Your task to perform on an android device: install app "Duolingo: language lessons" Image 0: 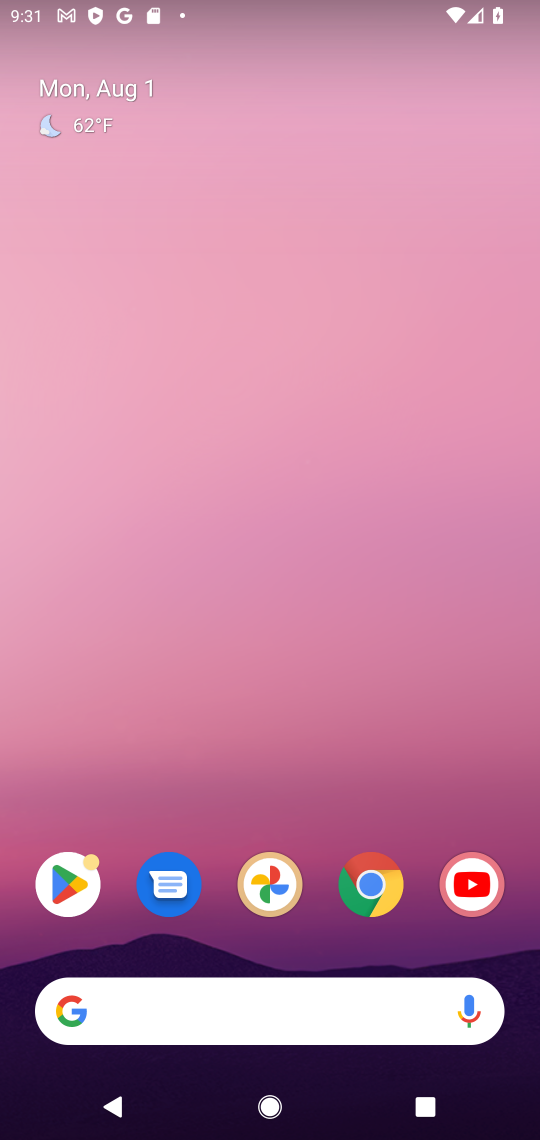
Step 0: click (76, 864)
Your task to perform on an android device: install app "Duolingo: language lessons" Image 1: 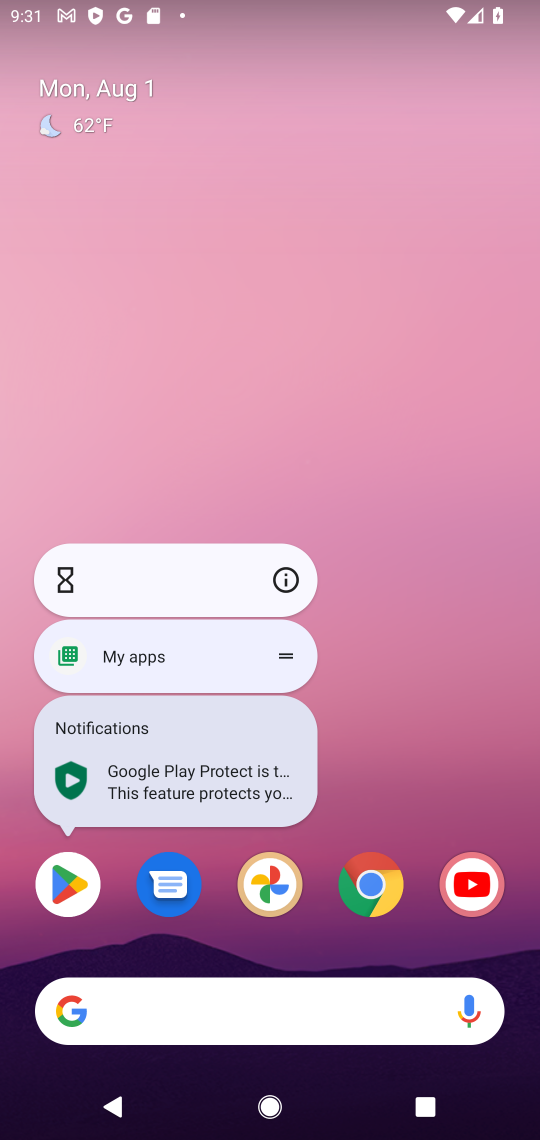
Step 1: click (76, 864)
Your task to perform on an android device: install app "Duolingo: language lessons" Image 2: 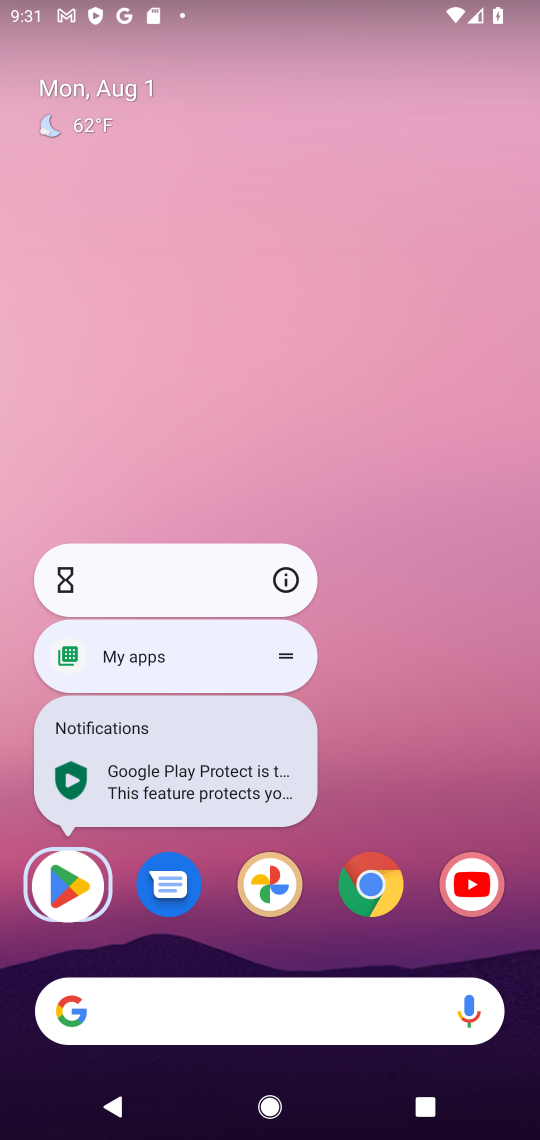
Step 2: click (76, 877)
Your task to perform on an android device: install app "Duolingo: language lessons" Image 3: 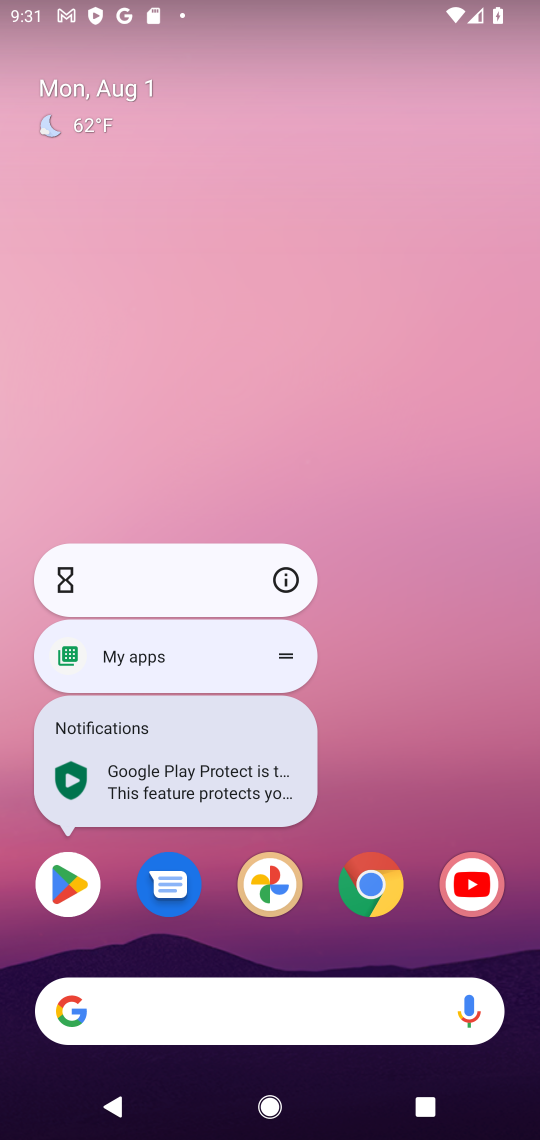
Step 3: click (64, 886)
Your task to perform on an android device: install app "Duolingo: language lessons" Image 4: 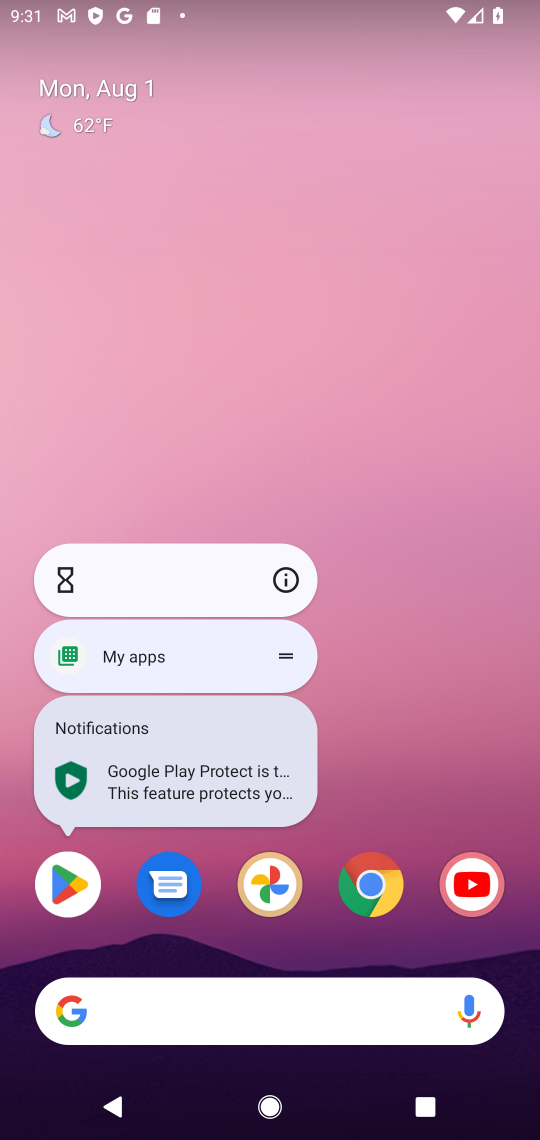
Step 4: click (64, 886)
Your task to perform on an android device: install app "Duolingo: language lessons" Image 5: 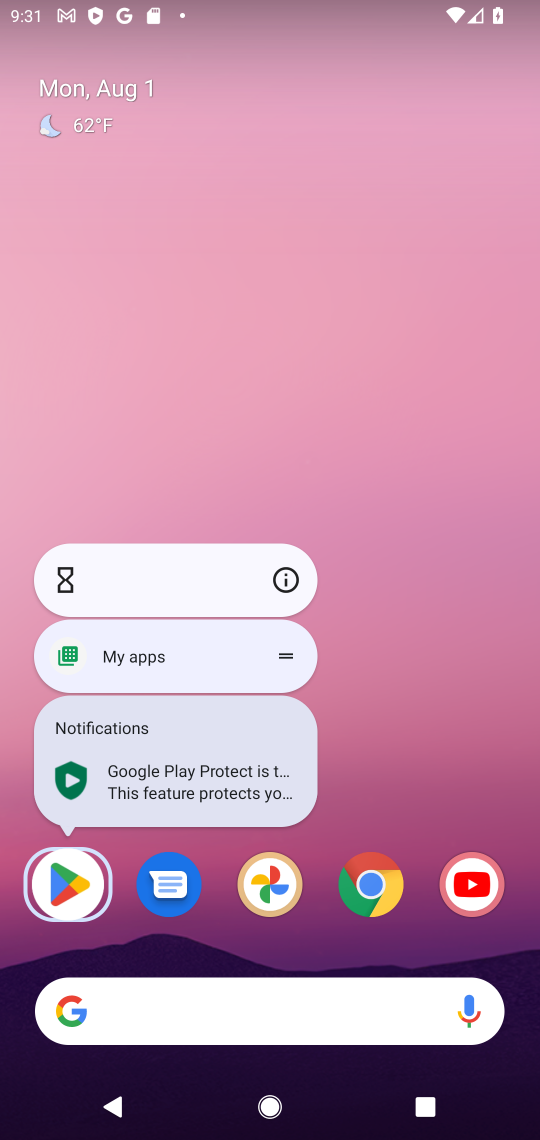
Step 5: click (64, 886)
Your task to perform on an android device: install app "Duolingo: language lessons" Image 6: 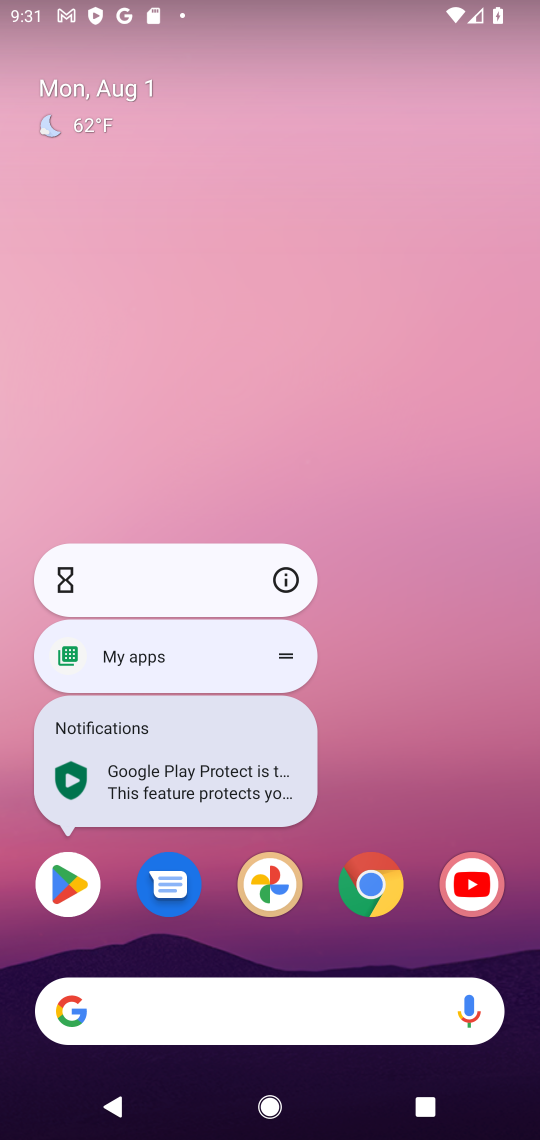
Step 6: click (64, 886)
Your task to perform on an android device: install app "Duolingo: language lessons" Image 7: 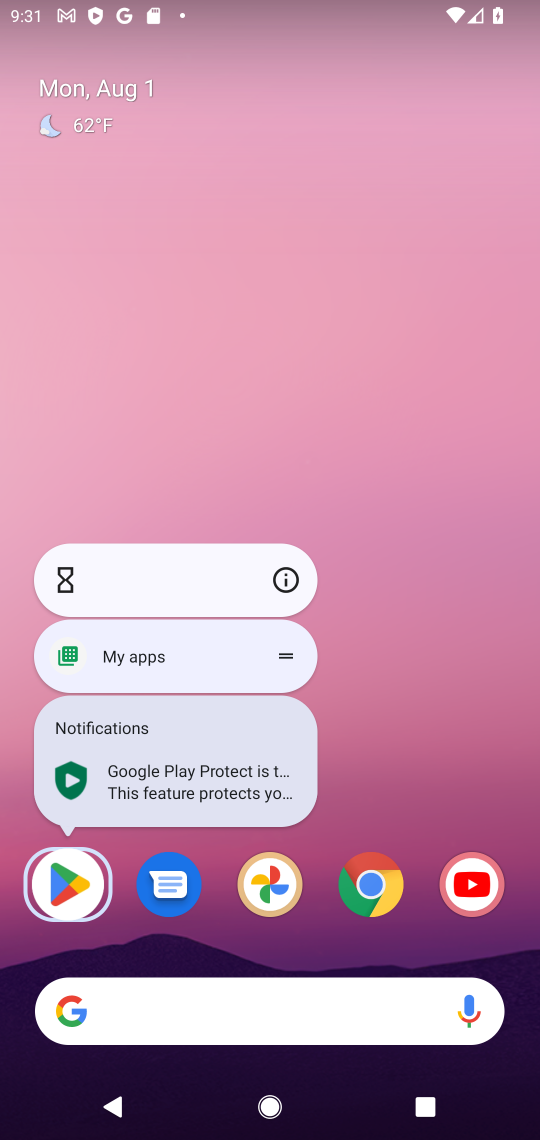
Step 7: click (64, 886)
Your task to perform on an android device: install app "Duolingo: language lessons" Image 8: 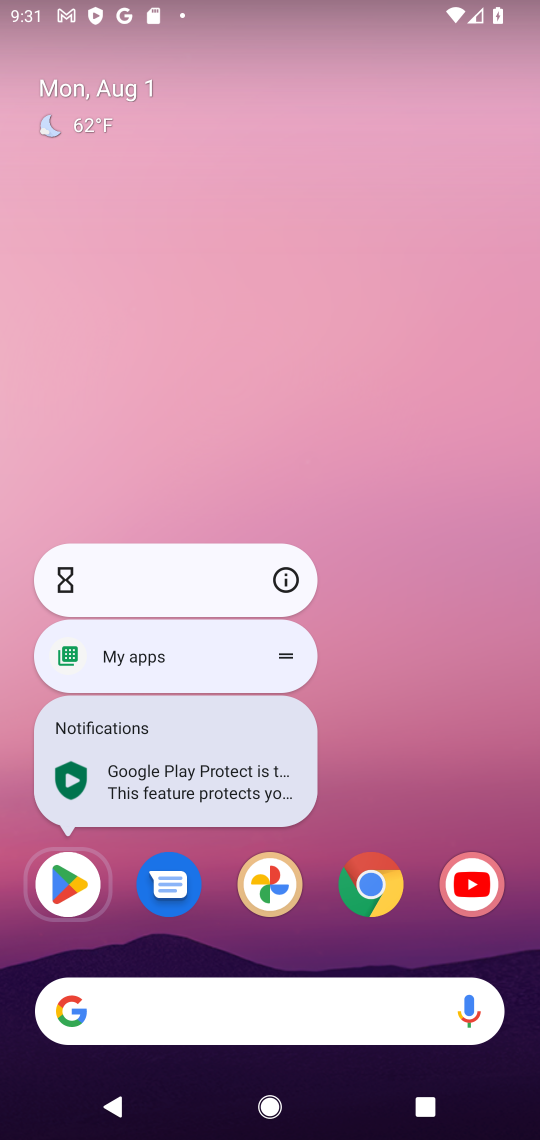
Step 8: click (64, 886)
Your task to perform on an android device: install app "Duolingo: language lessons" Image 9: 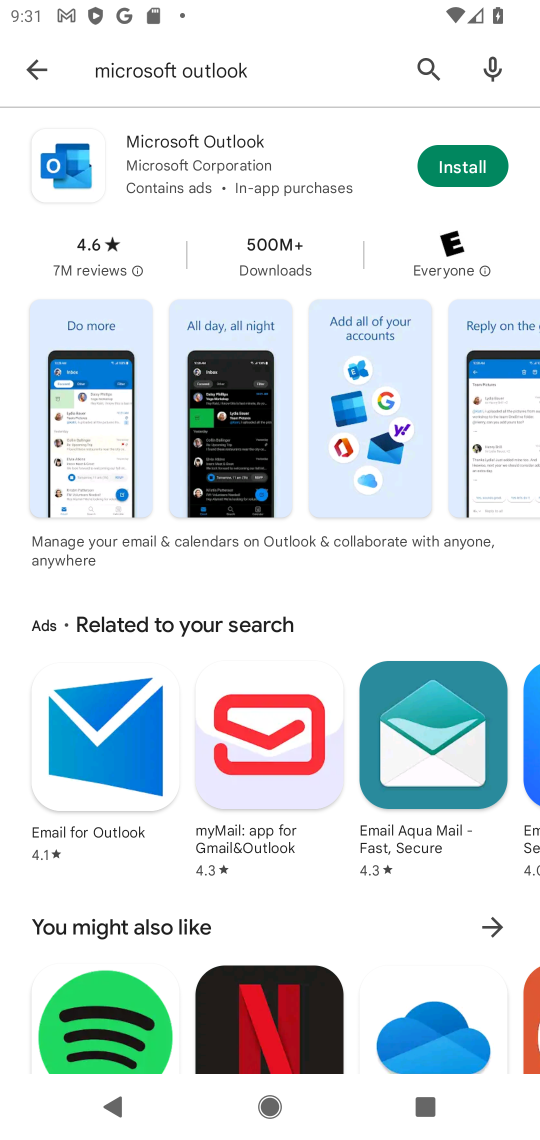
Step 9: click (432, 64)
Your task to perform on an android device: install app "Duolingo: language lessons" Image 10: 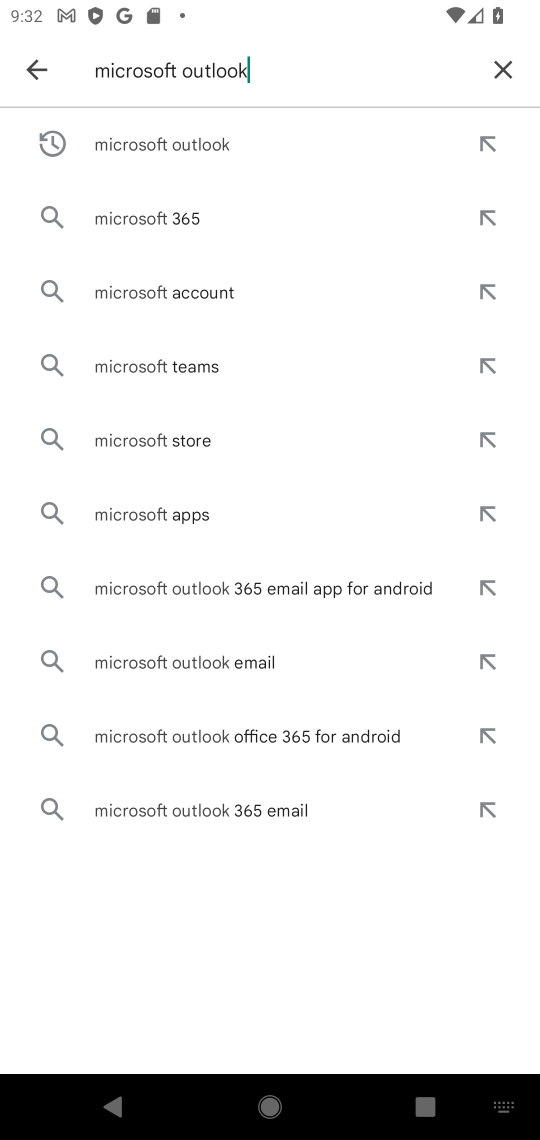
Step 10: click (490, 67)
Your task to perform on an android device: install app "Duolingo: language lessons" Image 11: 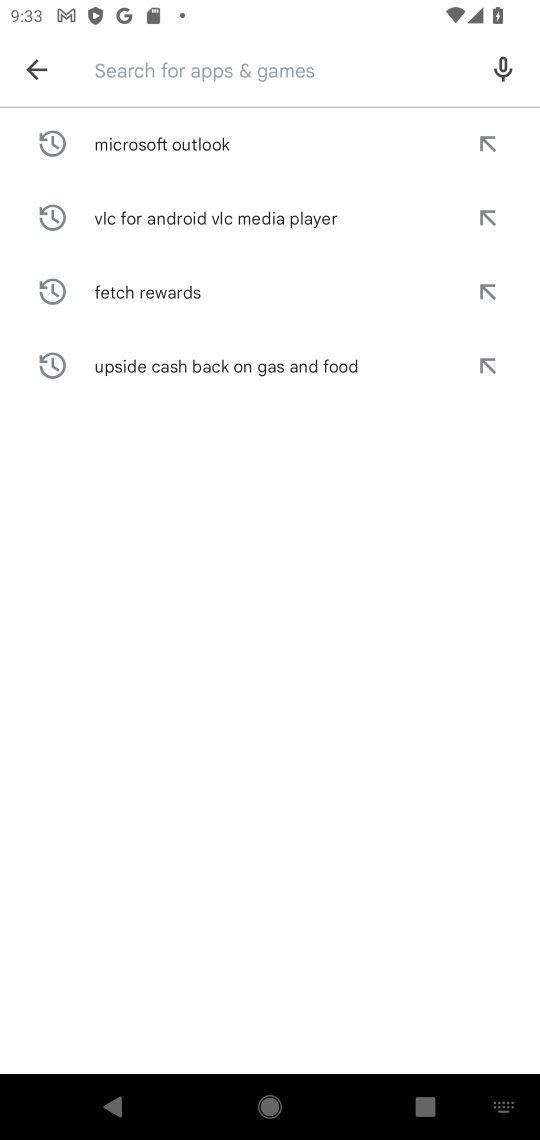
Step 11: type "Duolingo"
Your task to perform on an android device: install app "Duolingo: language lessons" Image 12: 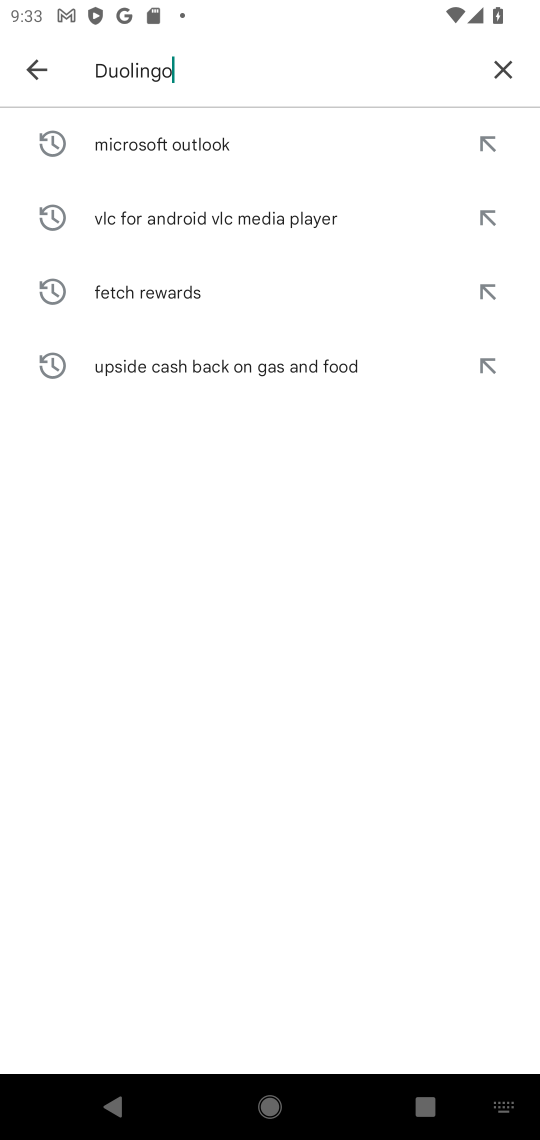
Step 12: type ""
Your task to perform on an android device: install app "Duolingo: language lessons" Image 13: 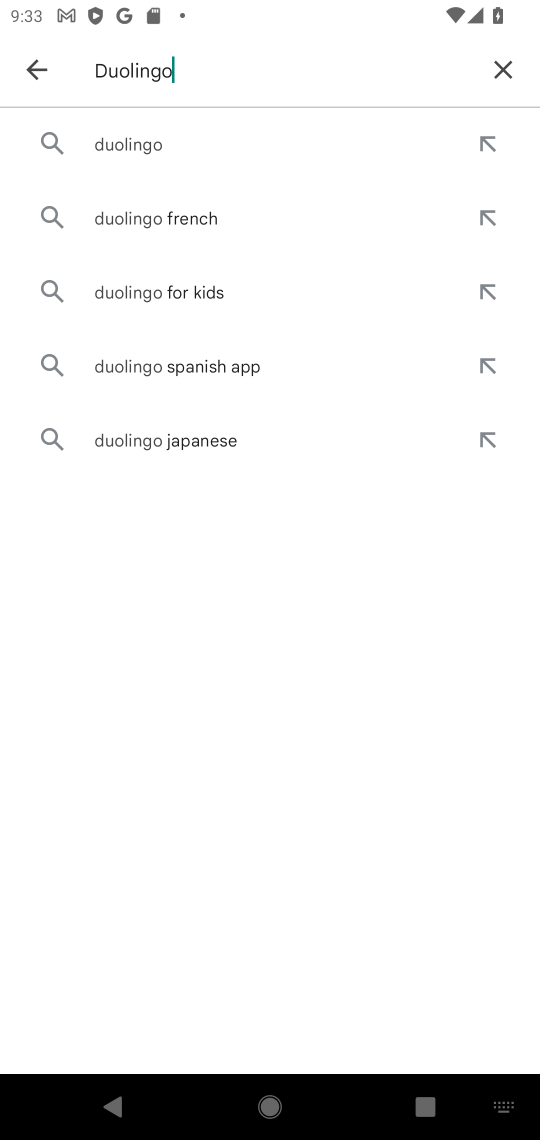
Step 13: click (187, 149)
Your task to perform on an android device: install app "Duolingo: language lessons" Image 14: 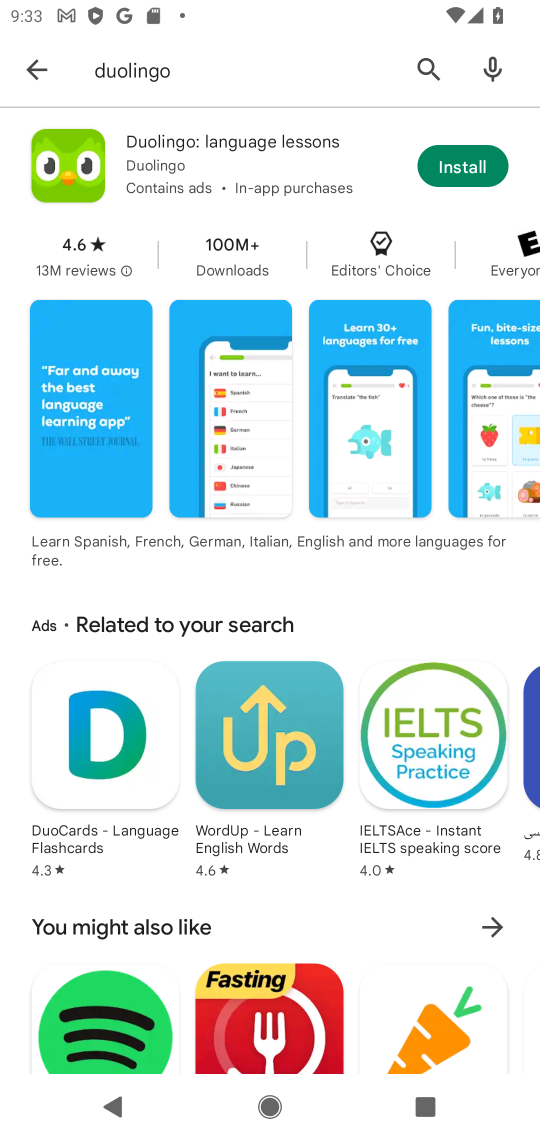
Step 14: click (451, 170)
Your task to perform on an android device: install app "Duolingo: language lessons" Image 15: 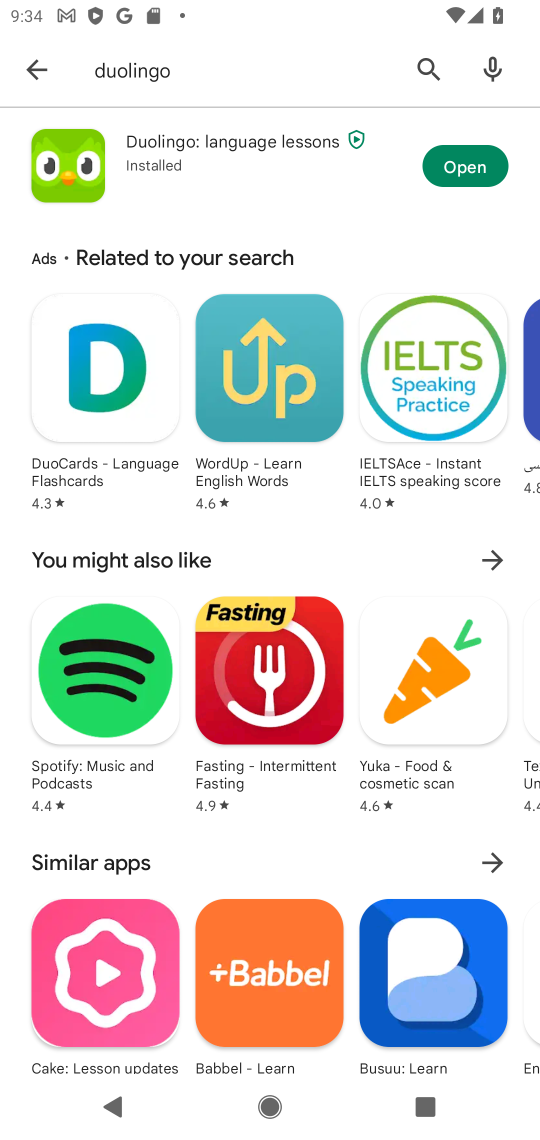
Step 15: task complete